Your task to perform on an android device: check android version Image 0: 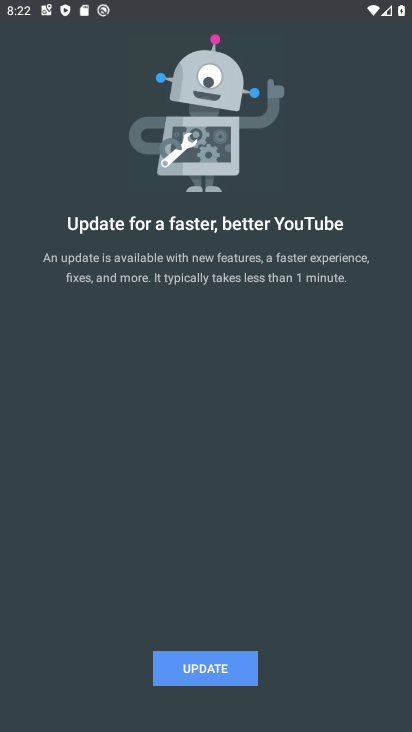
Step 0: drag from (228, 687) to (101, 155)
Your task to perform on an android device: check android version Image 1: 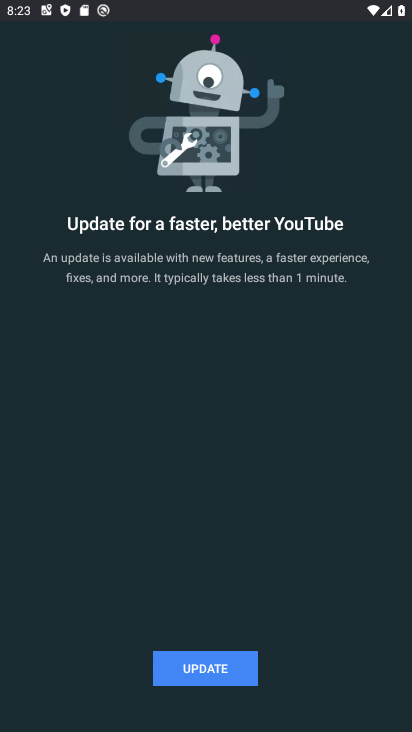
Step 1: press home button
Your task to perform on an android device: check android version Image 2: 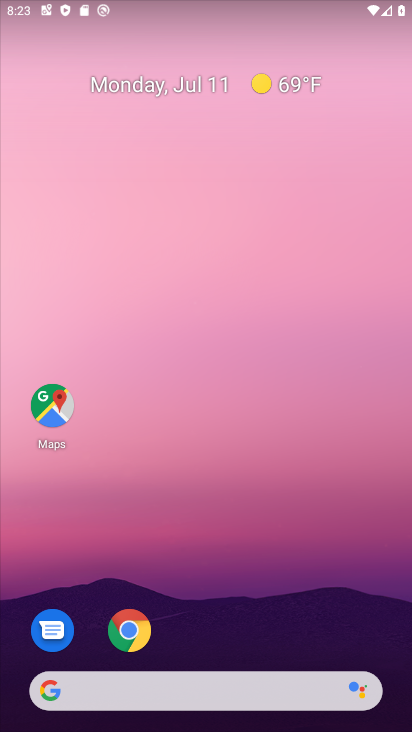
Step 2: drag from (182, 692) to (140, 98)
Your task to perform on an android device: check android version Image 3: 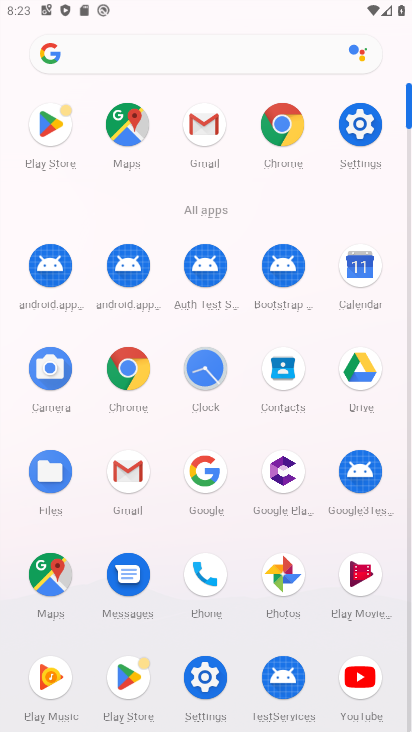
Step 3: click (202, 711)
Your task to perform on an android device: check android version Image 4: 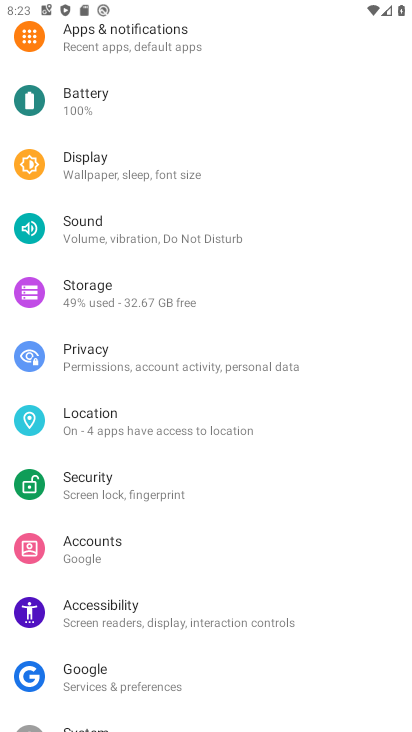
Step 4: drag from (145, 658) to (153, 267)
Your task to perform on an android device: check android version Image 5: 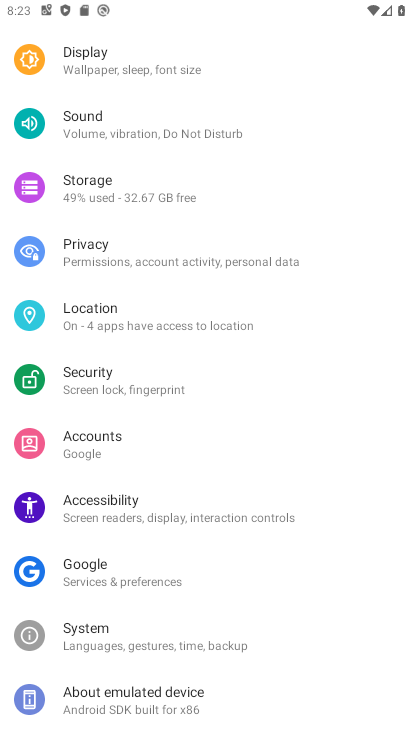
Step 5: click (80, 686)
Your task to perform on an android device: check android version Image 6: 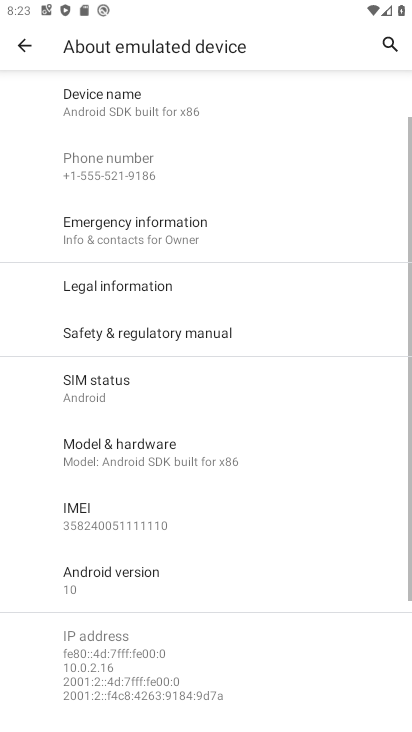
Step 6: click (126, 583)
Your task to perform on an android device: check android version Image 7: 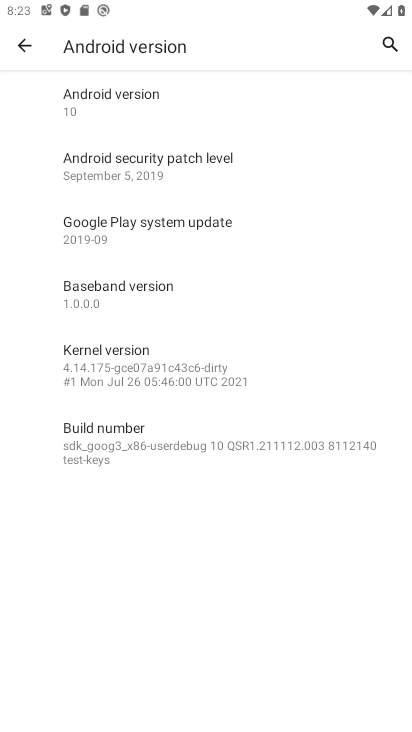
Step 7: task complete